Your task to perform on an android device: check android version Image 0: 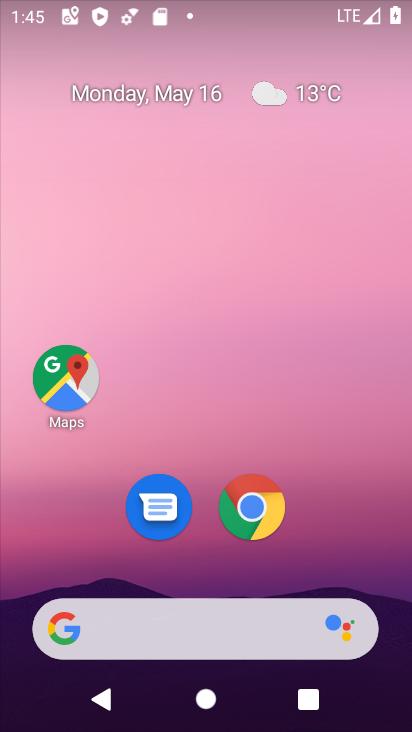
Step 0: drag from (330, 505) to (177, 43)
Your task to perform on an android device: check android version Image 1: 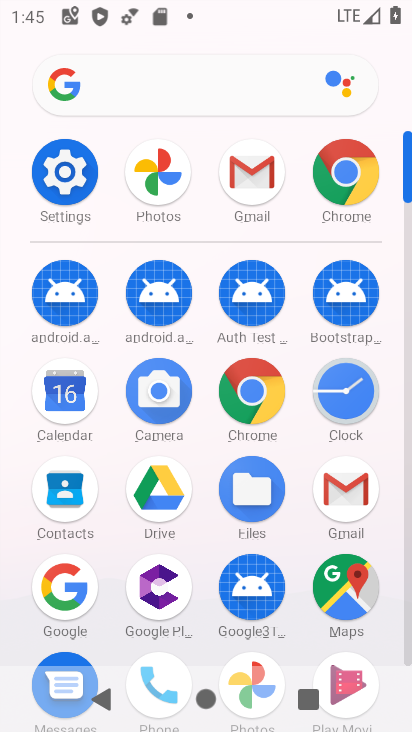
Step 1: click (55, 179)
Your task to perform on an android device: check android version Image 2: 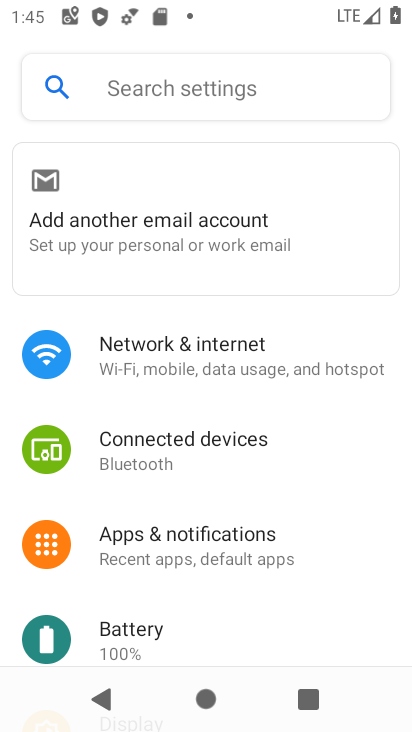
Step 2: drag from (235, 547) to (231, 149)
Your task to perform on an android device: check android version Image 3: 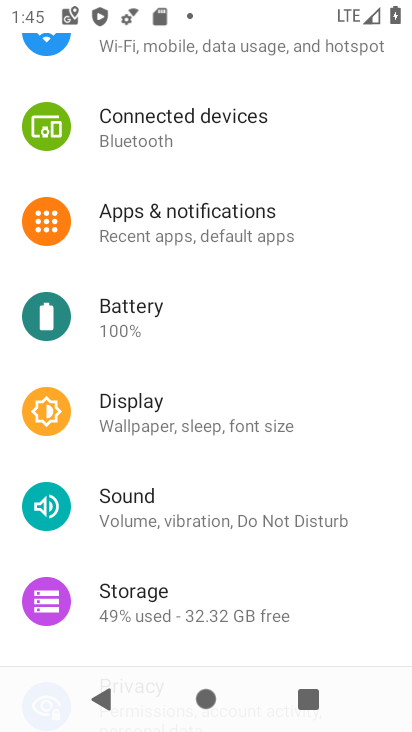
Step 3: drag from (256, 494) to (206, 116)
Your task to perform on an android device: check android version Image 4: 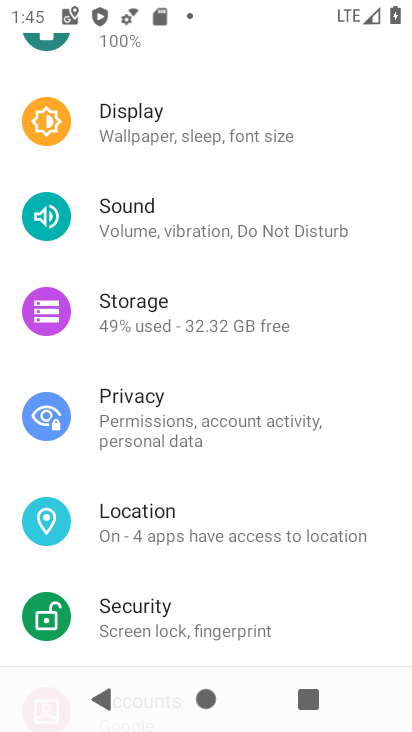
Step 4: drag from (202, 518) to (207, 165)
Your task to perform on an android device: check android version Image 5: 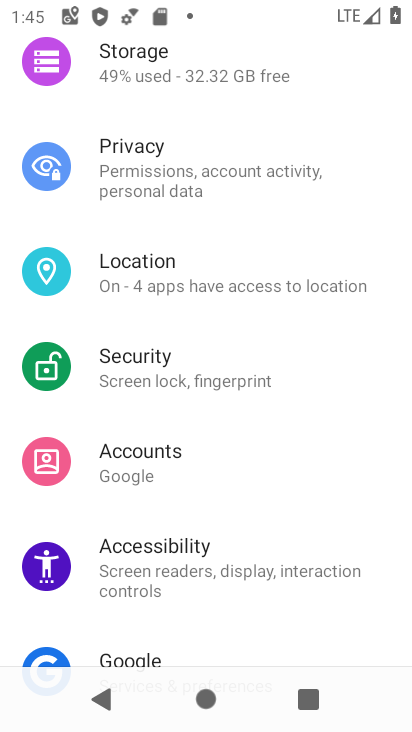
Step 5: drag from (261, 475) to (235, 171)
Your task to perform on an android device: check android version Image 6: 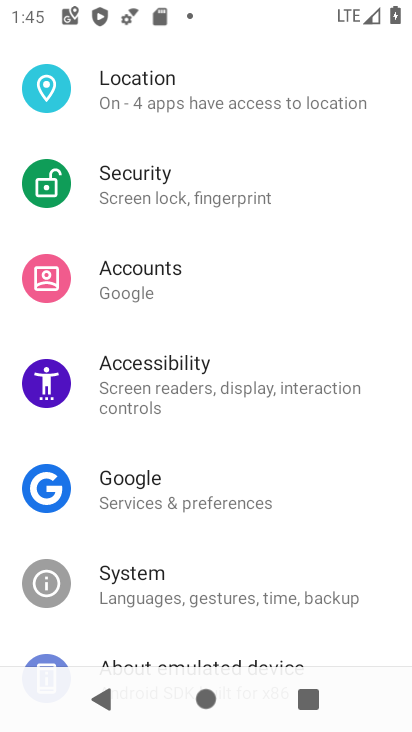
Step 6: drag from (226, 426) to (230, 161)
Your task to perform on an android device: check android version Image 7: 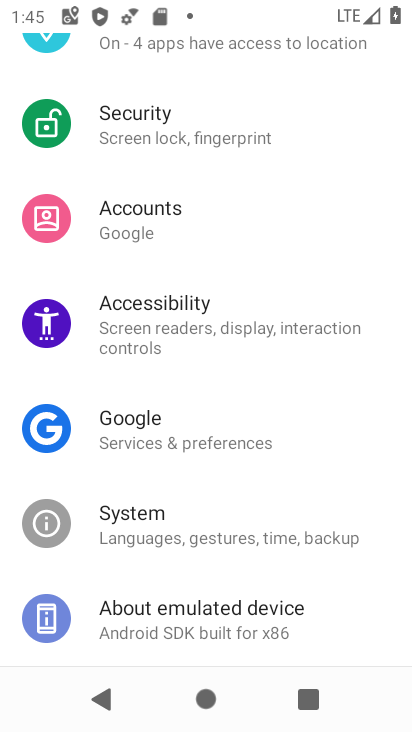
Step 7: click (213, 614)
Your task to perform on an android device: check android version Image 8: 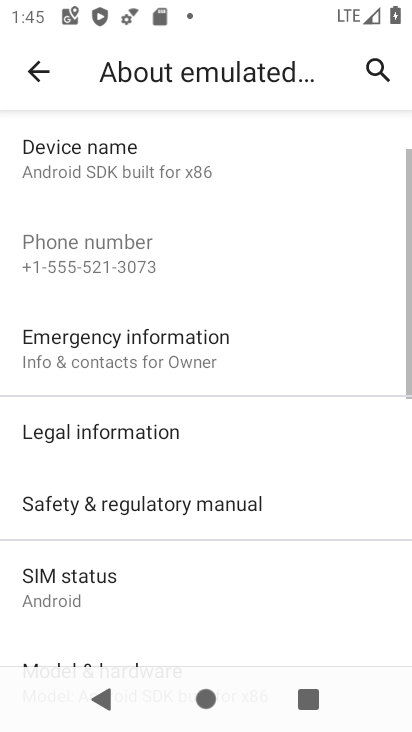
Step 8: drag from (228, 220) to (211, 589)
Your task to perform on an android device: check android version Image 9: 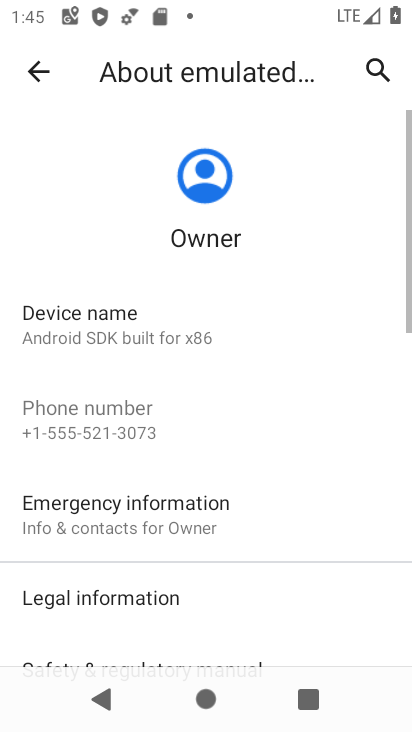
Step 9: drag from (183, 572) to (190, 165)
Your task to perform on an android device: check android version Image 10: 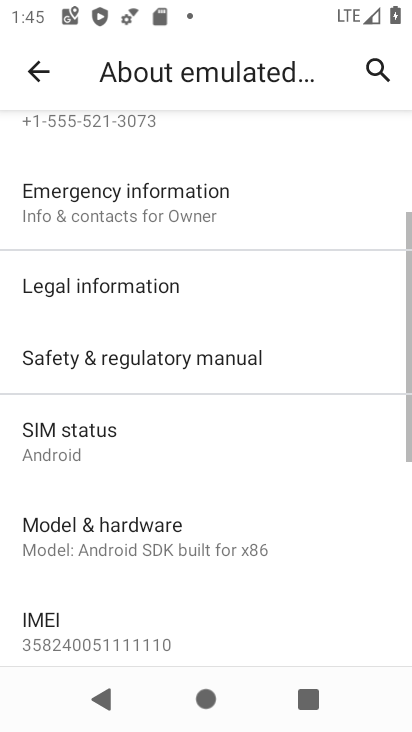
Step 10: drag from (169, 545) to (198, 219)
Your task to perform on an android device: check android version Image 11: 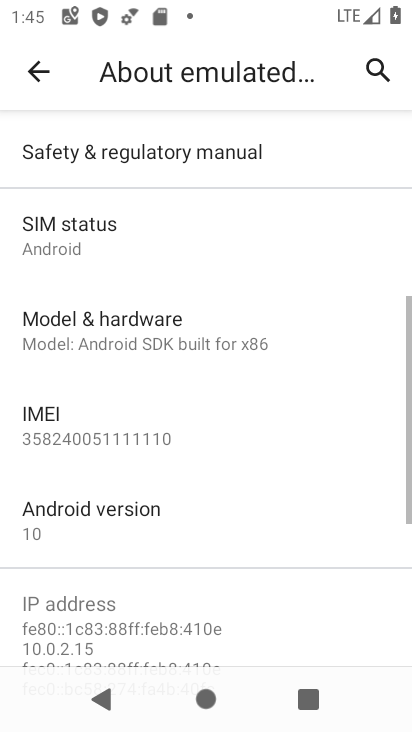
Step 11: click (156, 531)
Your task to perform on an android device: check android version Image 12: 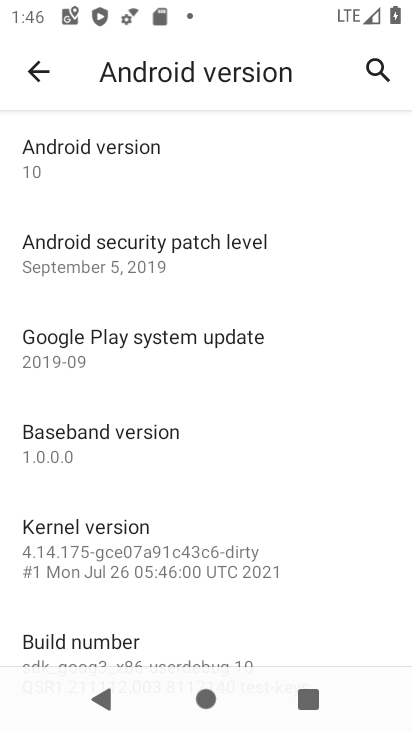
Step 12: click (195, 171)
Your task to perform on an android device: check android version Image 13: 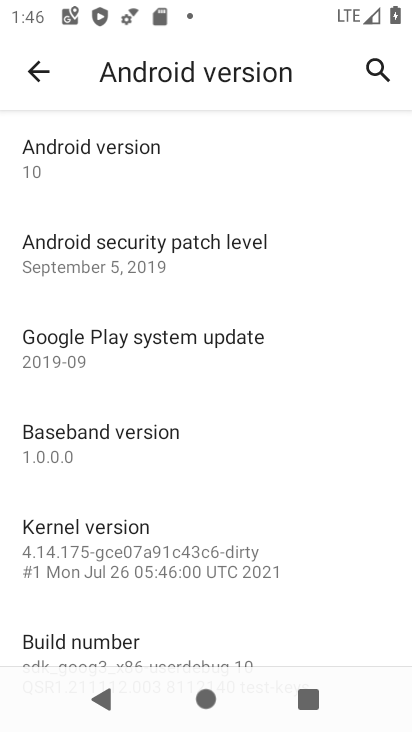
Step 13: task complete